Your task to perform on an android device: turn vacation reply on in the gmail app Image 0: 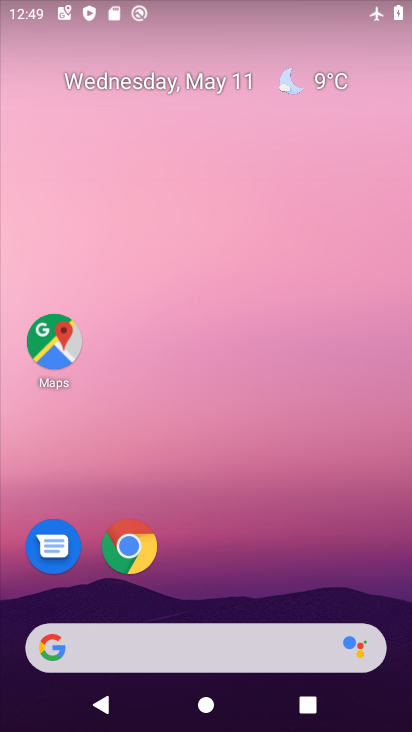
Step 0: drag from (300, 589) to (315, 50)
Your task to perform on an android device: turn vacation reply on in the gmail app Image 1: 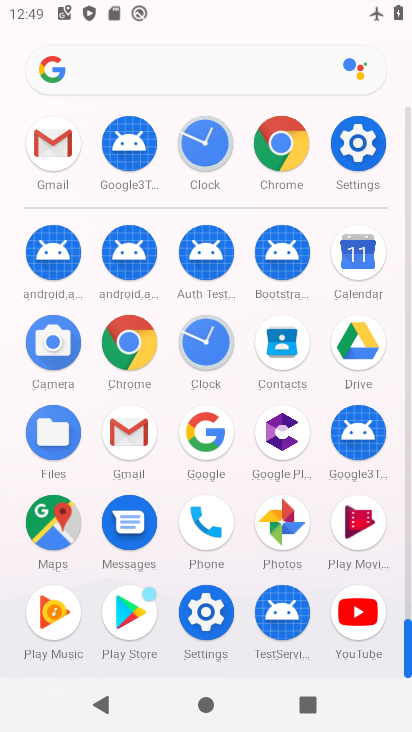
Step 1: click (137, 440)
Your task to perform on an android device: turn vacation reply on in the gmail app Image 2: 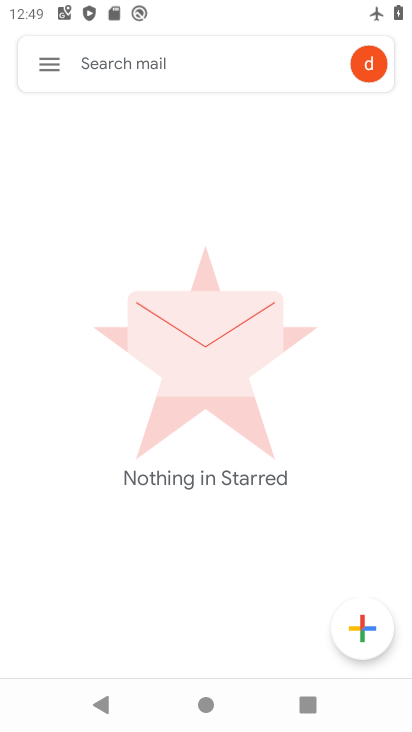
Step 2: click (36, 63)
Your task to perform on an android device: turn vacation reply on in the gmail app Image 3: 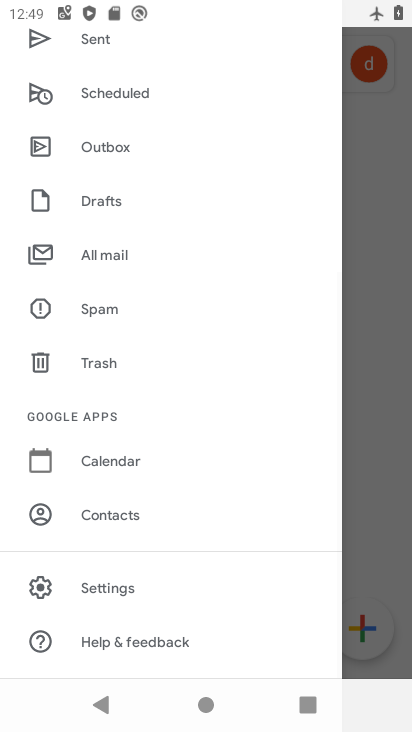
Step 3: click (119, 596)
Your task to perform on an android device: turn vacation reply on in the gmail app Image 4: 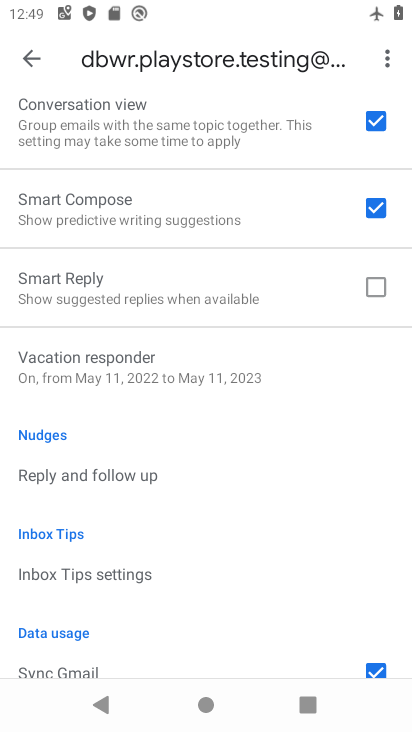
Step 4: drag from (283, 636) to (317, 425)
Your task to perform on an android device: turn vacation reply on in the gmail app Image 5: 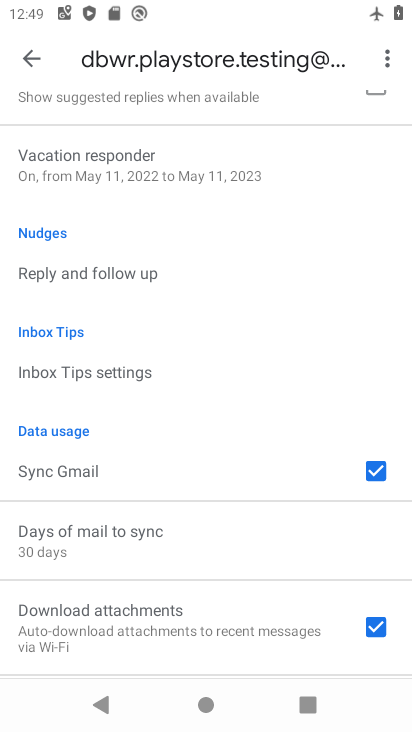
Step 5: click (240, 162)
Your task to perform on an android device: turn vacation reply on in the gmail app Image 6: 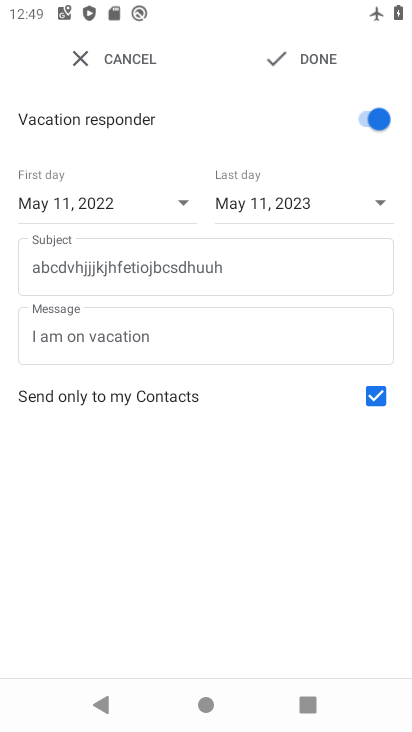
Step 6: click (309, 54)
Your task to perform on an android device: turn vacation reply on in the gmail app Image 7: 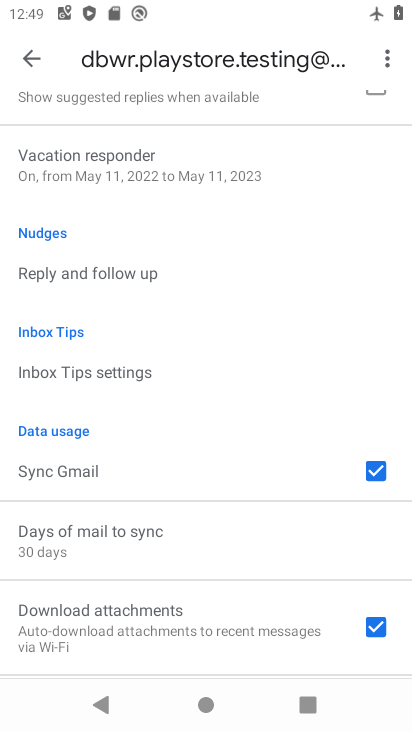
Step 7: task complete